Your task to perform on an android device: empty trash in google photos Image 0: 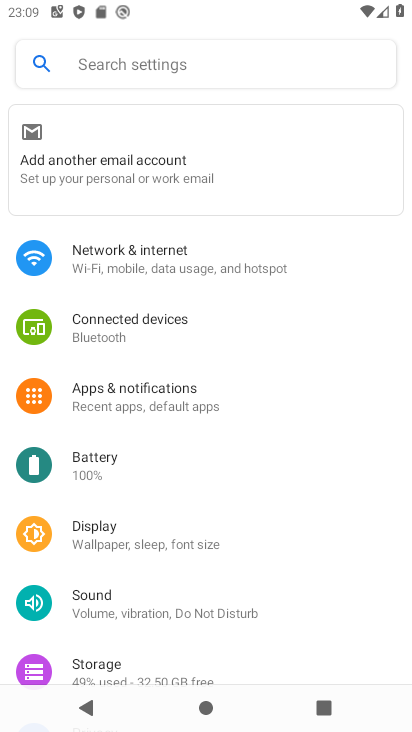
Step 0: press back button
Your task to perform on an android device: empty trash in google photos Image 1: 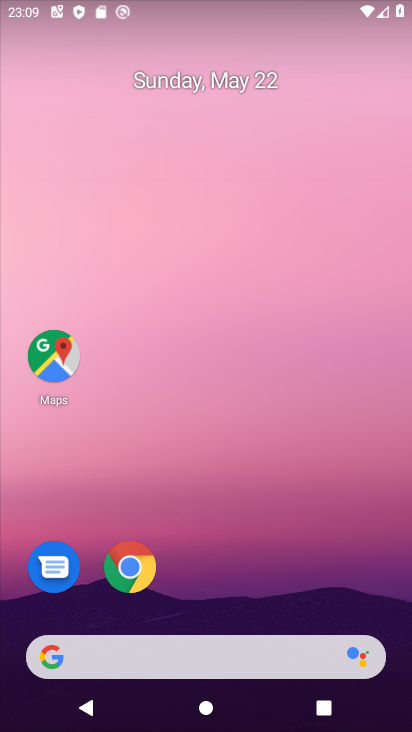
Step 1: drag from (240, 493) to (263, 31)
Your task to perform on an android device: empty trash in google photos Image 2: 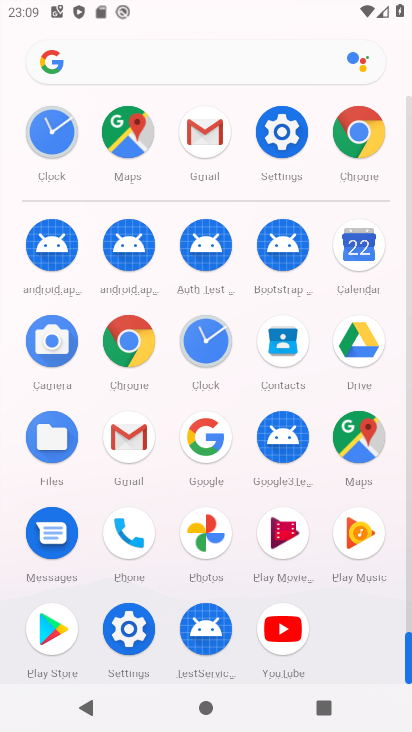
Step 2: drag from (11, 476) to (25, 157)
Your task to perform on an android device: empty trash in google photos Image 3: 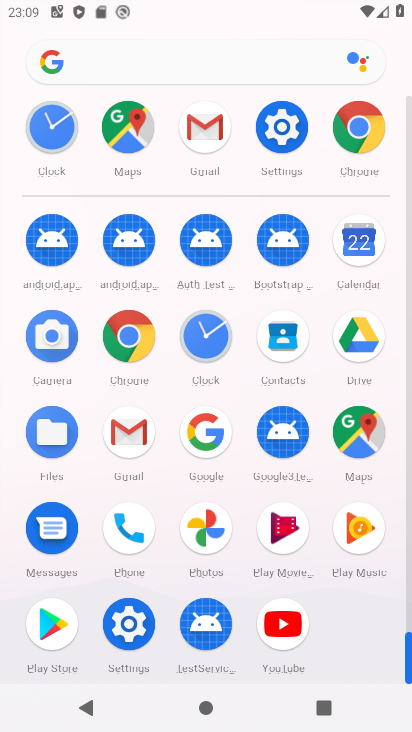
Step 3: click (207, 528)
Your task to perform on an android device: empty trash in google photos Image 4: 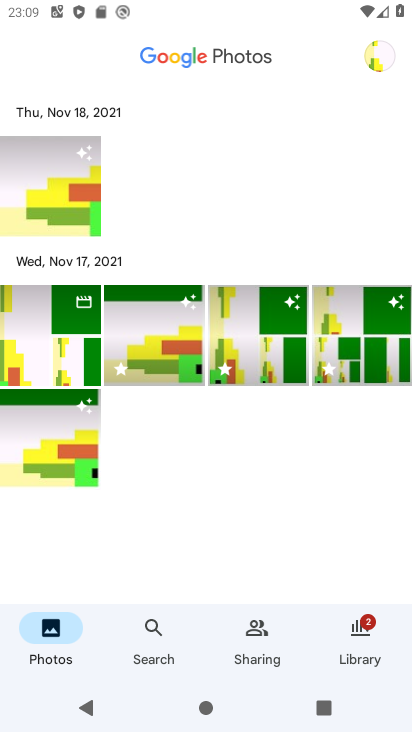
Step 4: click (368, 633)
Your task to perform on an android device: empty trash in google photos Image 5: 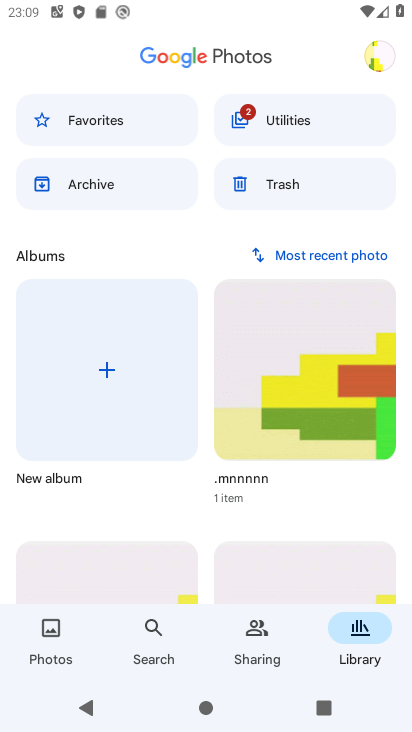
Step 5: click (293, 167)
Your task to perform on an android device: empty trash in google photos Image 6: 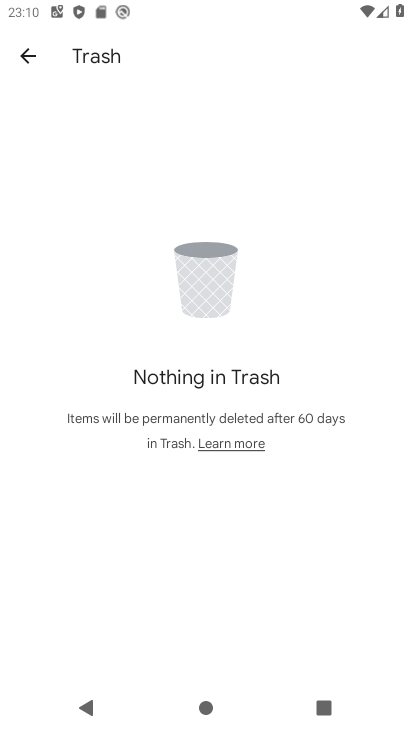
Step 6: task complete